Your task to perform on an android device: create a new album in the google photos Image 0: 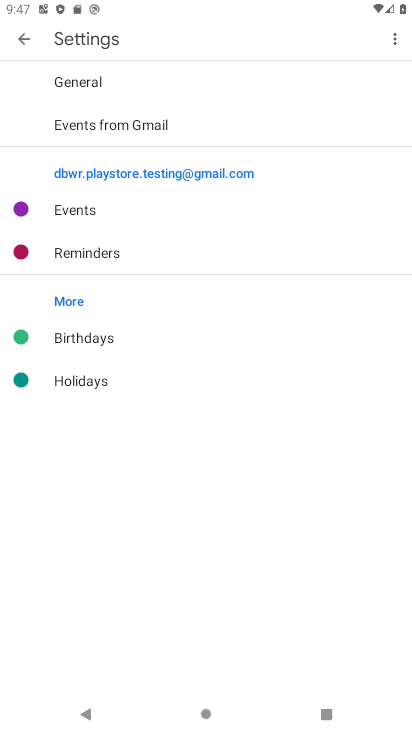
Step 0: press back button
Your task to perform on an android device: create a new album in the google photos Image 1: 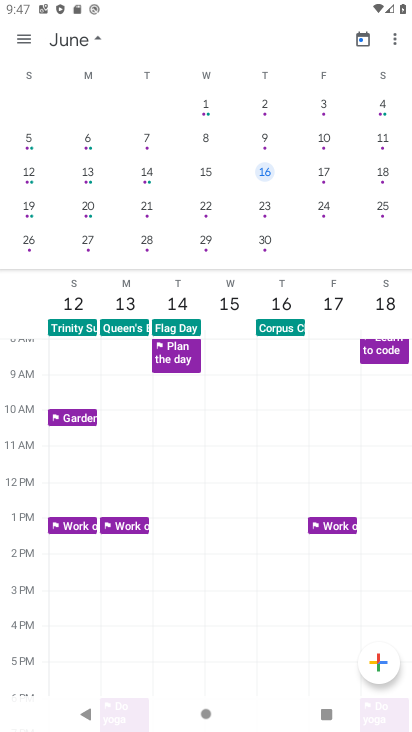
Step 1: press home button
Your task to perform on an android device: create a new album in the google photos Image 2: 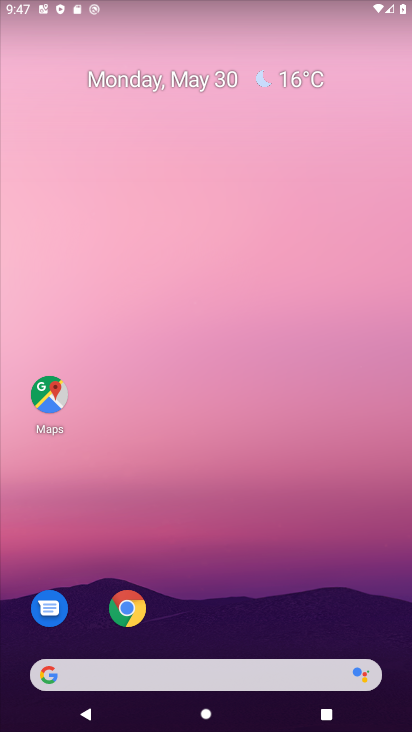
Step 2: drag from (386, 599) to (350, 155)
Your task to perform on an android device: create a new album in the google photos Image 3: 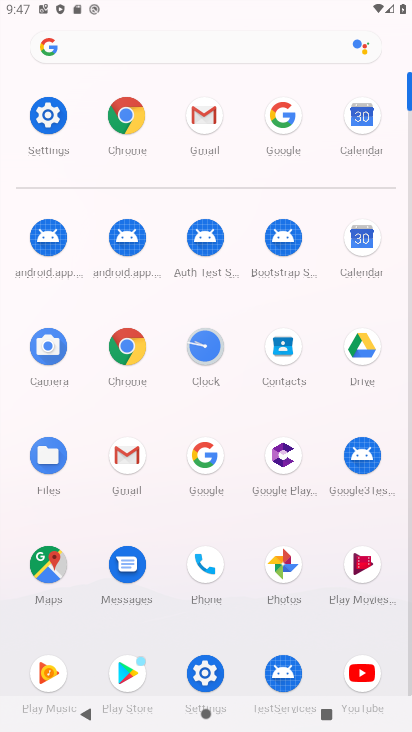
Step 3: click (283, 570)
Your task to perform on an android device: create a new album in the google photos Image 4: 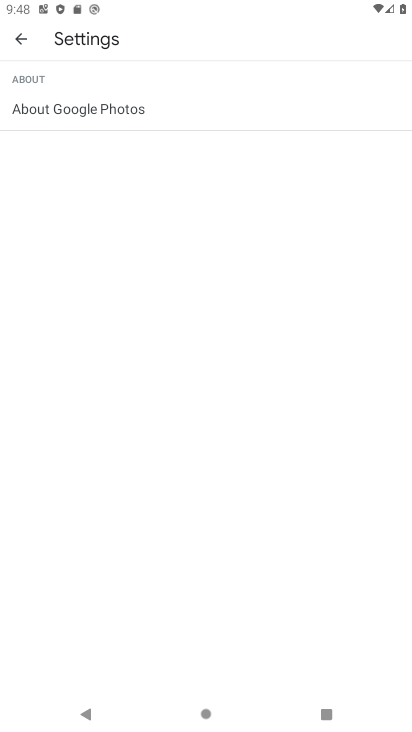
Step 4: click (19, 40)
Your task to perform on an android device: create a new album in the google photos Image 5: 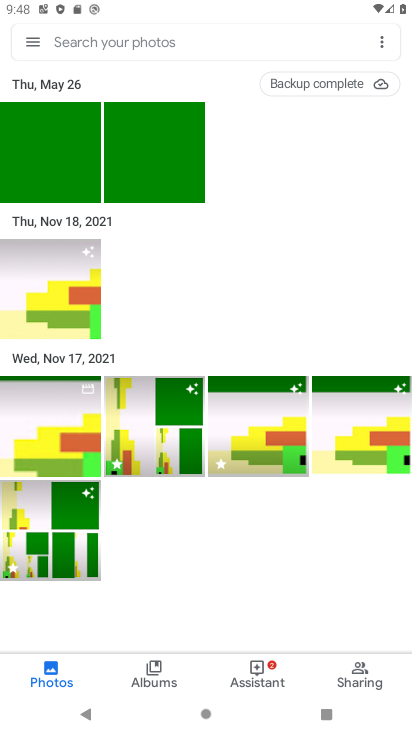
Step 5: click (81, 292)
Your task to perform on an android device: create a new album in the google photos Image 6: 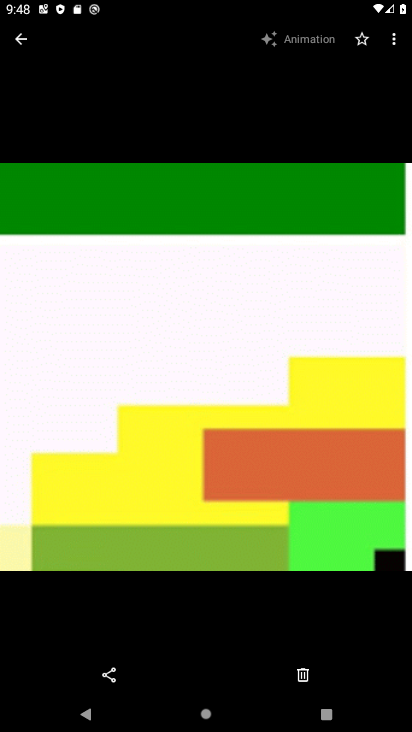
Step 6: click (20, 43)
Your task to perform on an android device: create a new album in the google photos Image 7: 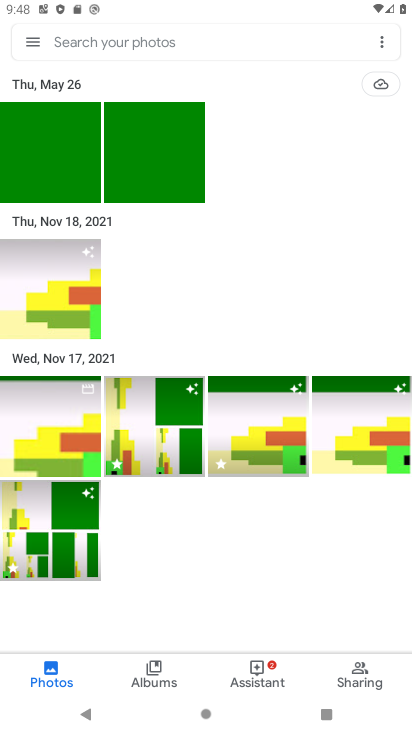
Step 7: task complete